Your task to perform on an android device: check storage Image 0: 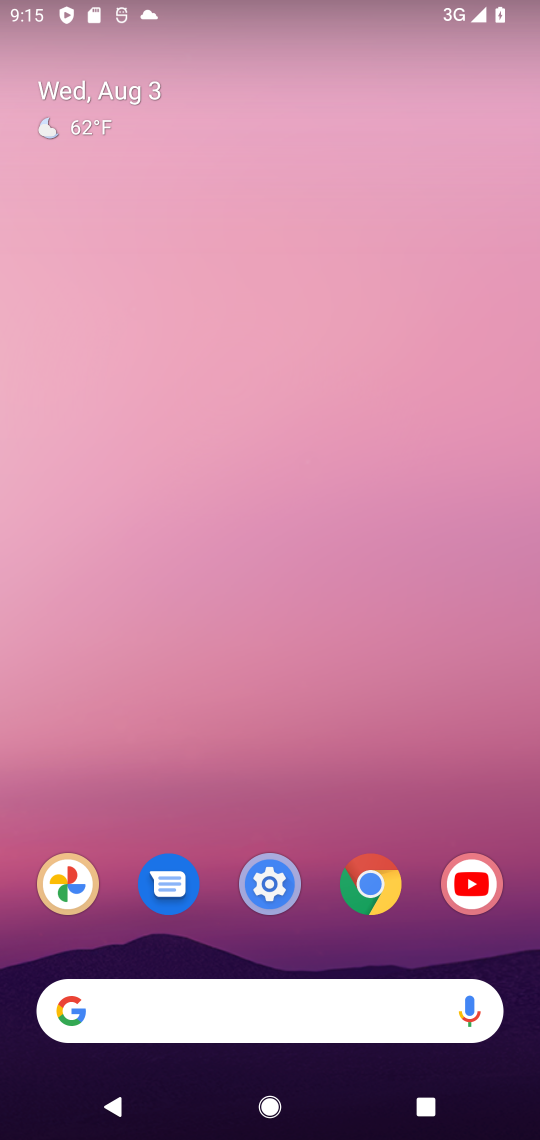
Step 0: click (376, 630)
Your task to perform on an android device: check storage Image 1: 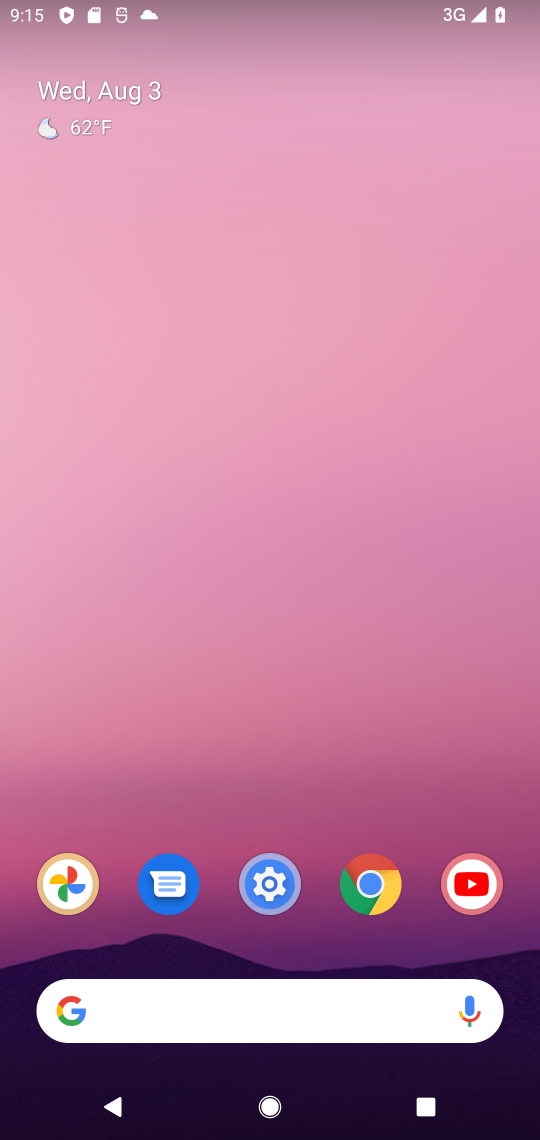
Step 1: drag from (320, 505) to (368, 208)
Your task to perform on an android device: check storage Image 2: 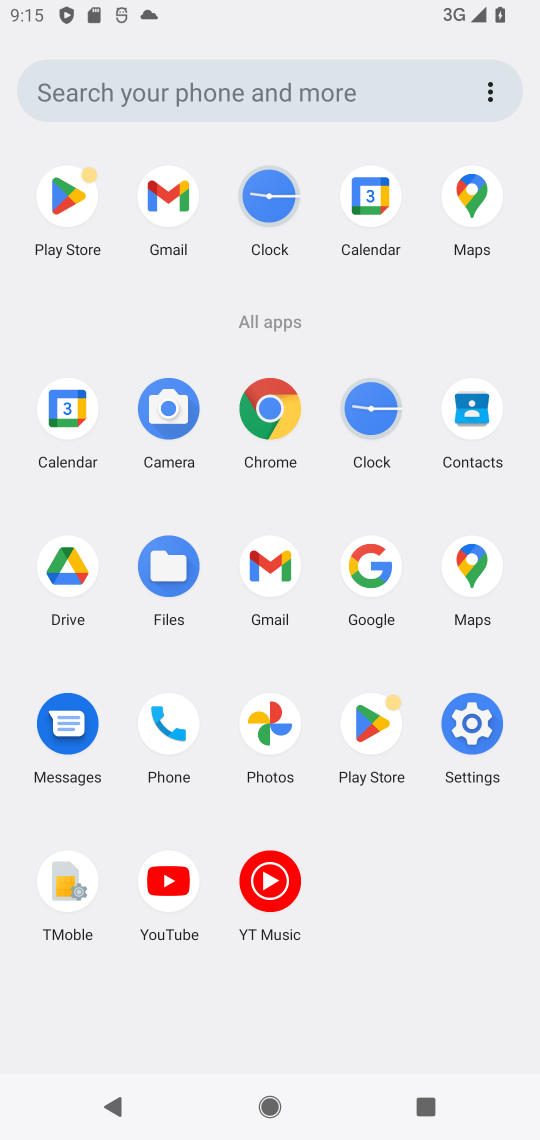
Step 2: click (465, 839)
Your task to perform on an android device: check storage Image 3: 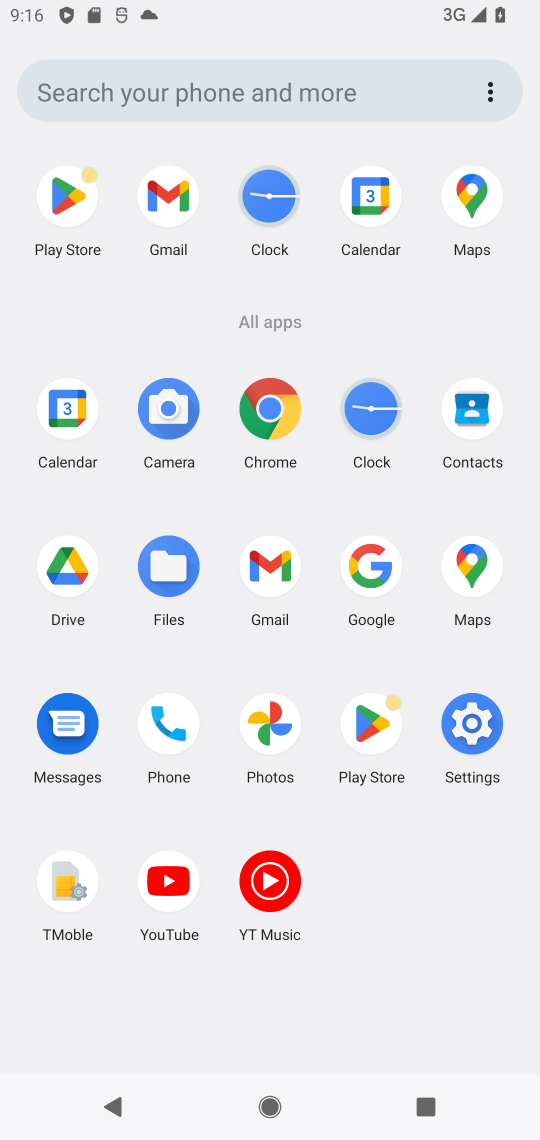
Step 3: click (466, 716)
Your task to perform on an android device: check storage Image 4: 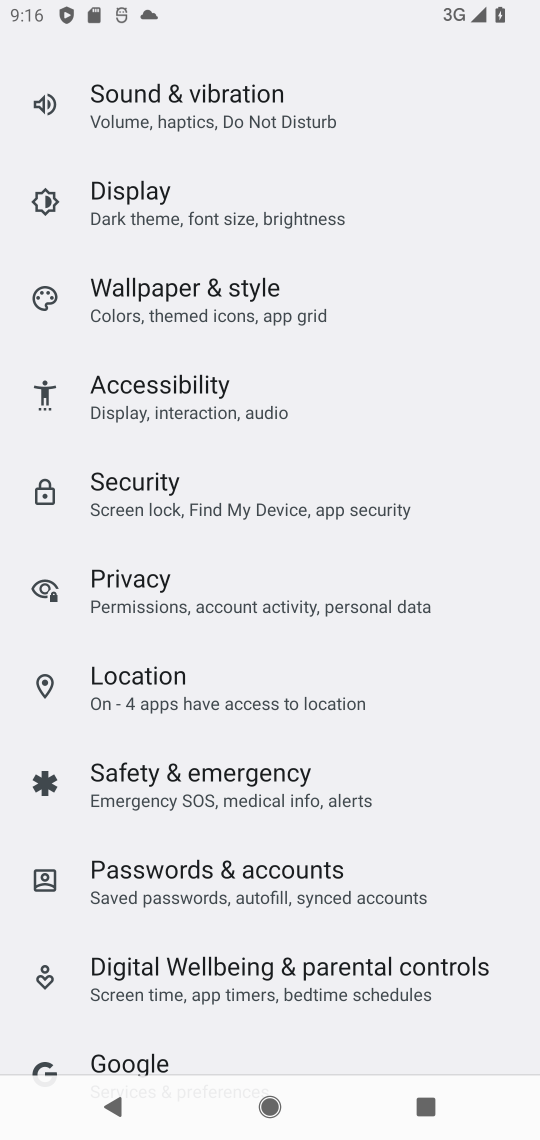
Step 4: drag from (290, 324) to (282, 1030)
Your task to perform on an android device: check storage Image 5: 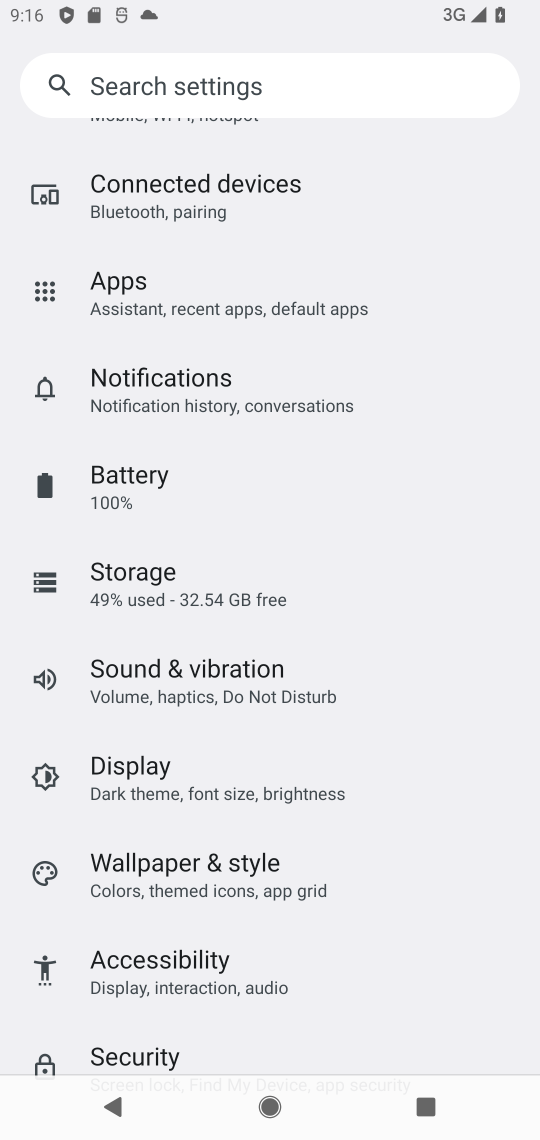
Step 5: drag from (249, 442) to (313, 1076)
Your task to perform on an android device: check storage Image 6: 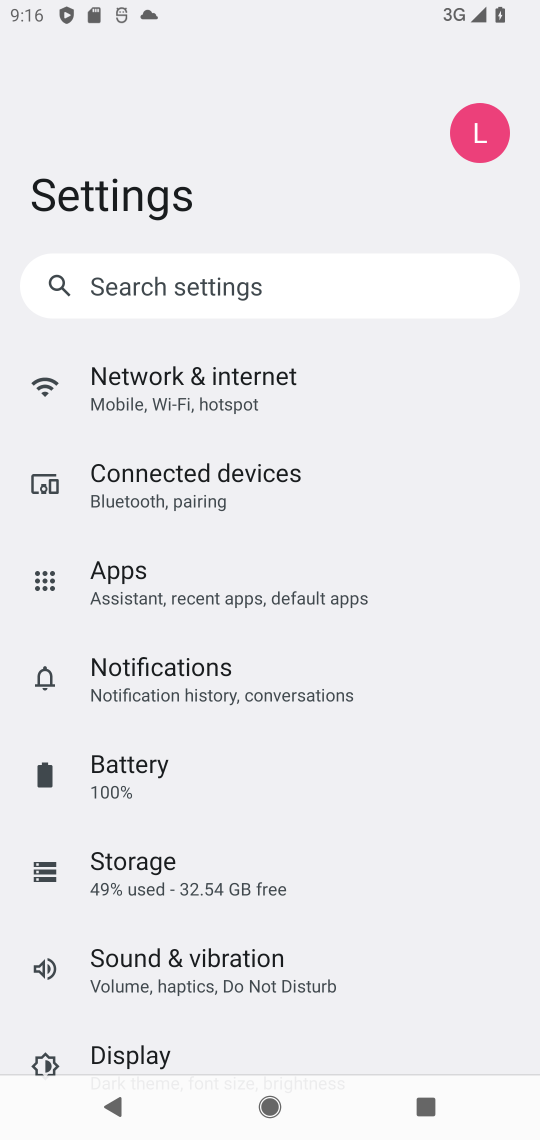
Step 6: click (206, 866)
Your task to perform on an android device: check storage Image 7: 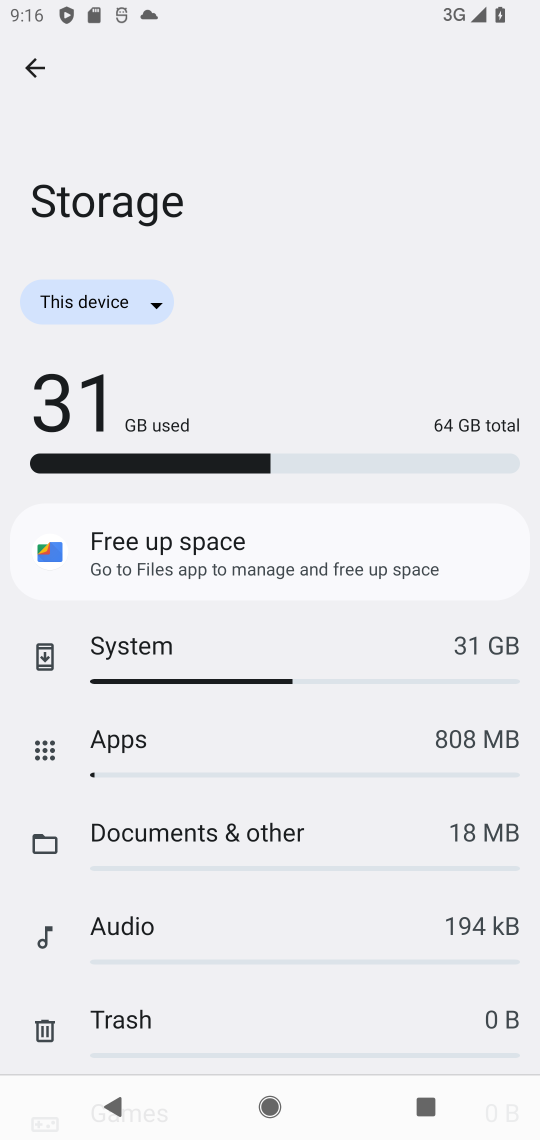
Step 7: task complete